Your task to perform on an android device: Turn on the flashlight Image 0: 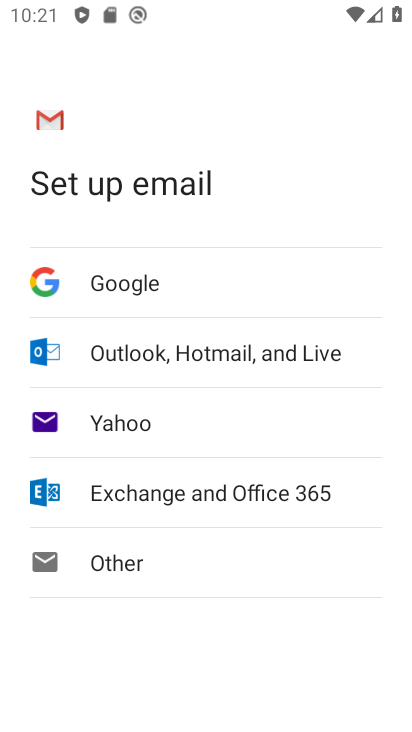
Step 0: press back button
Your task to perform on an android device: Turn on the flashlight Image 1: 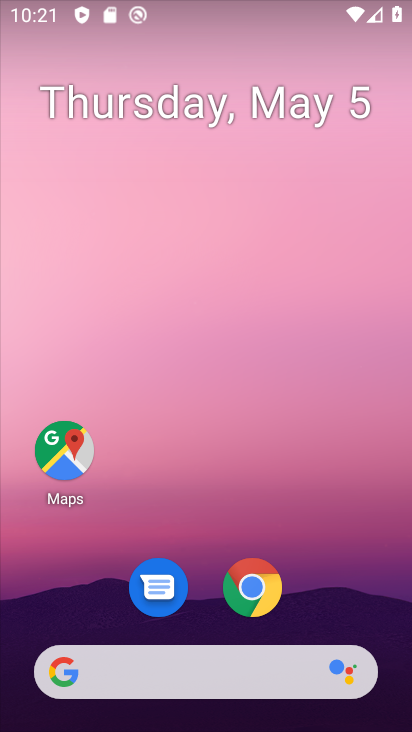
Step 1: drag from (297, 574) to (232, 7)
Your task to perform on an android device: Turn on the flashlight Image 2: 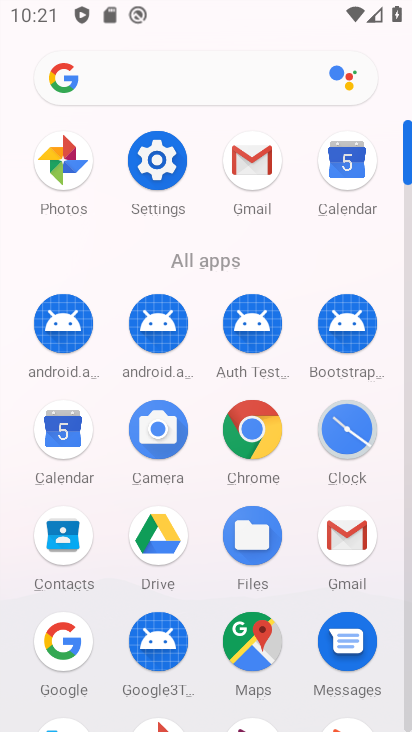
Step 2: drag from (5, 585) to (8, 285)
Your task to perform on an android device: Turn on the flashlight Image 3: 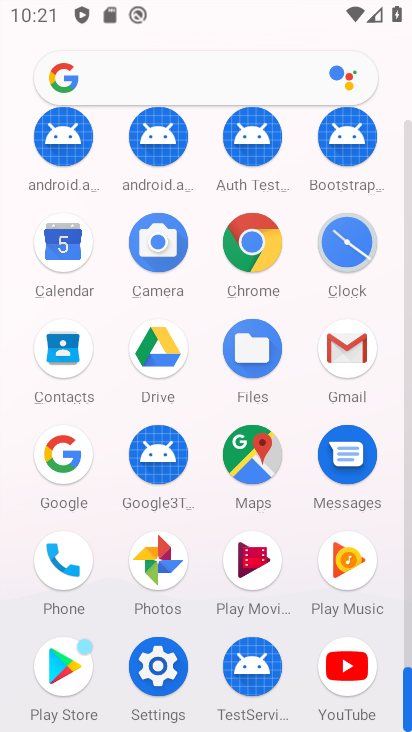
Step 3: drag from (3, 592) to (4, 284)
Your task to perform on an android device: Turn on the flashlight Image 4: 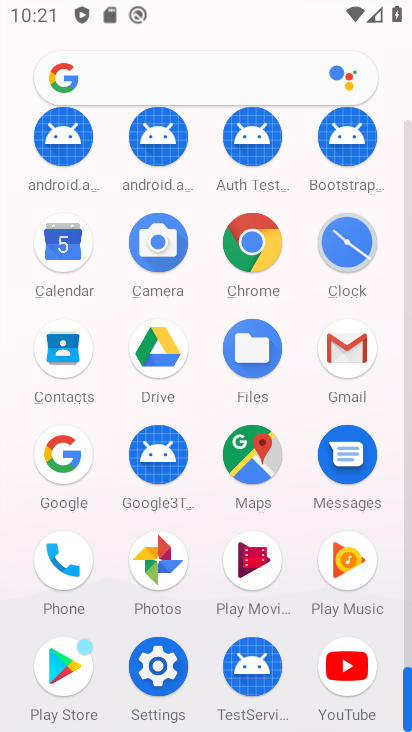
Step 4: click (158, 666)
Your task to perform on an android device: Turn on the flashlight Image 5: 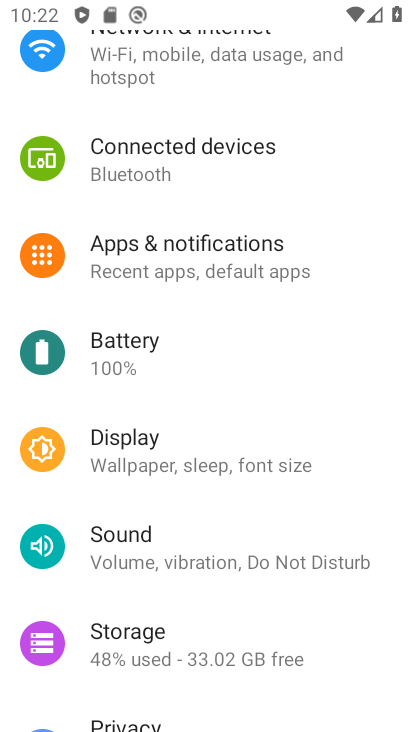
Step 5: drag from (263, 96) to (226, 560)
Your task to perform on an android device: Turn on the flashlight Image 6: 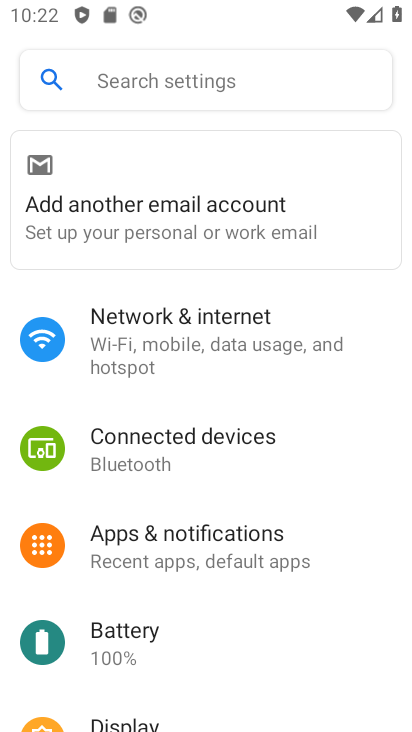
Step 6: drag from (302, 542) to (329, 222)
Your task to perform on an android device: Turn on the flashlight Image 7: 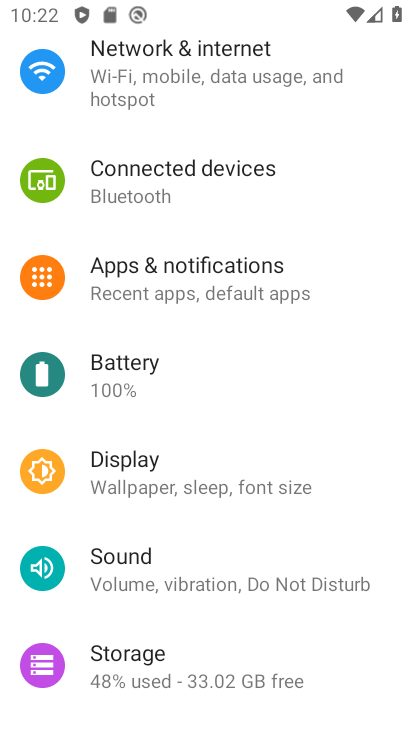
Step 7: drag from (258, 115) to (261, 447)
Your task to perform on an android device: Turn on the flashlight Image 8: 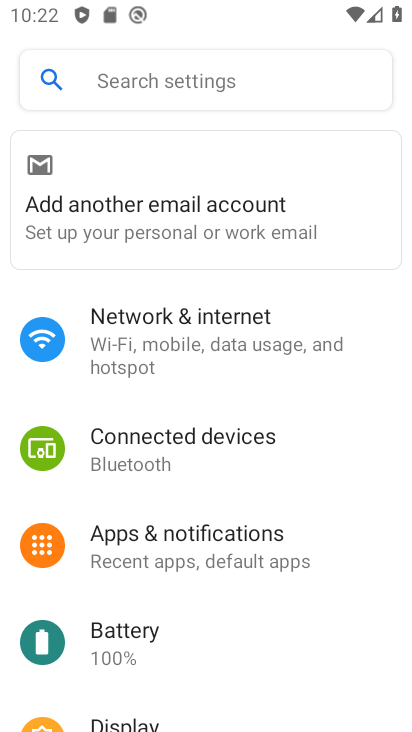
Step 8: click (202, 357)
Your task to perform on an android device: Turn on the flashlight Image 9: 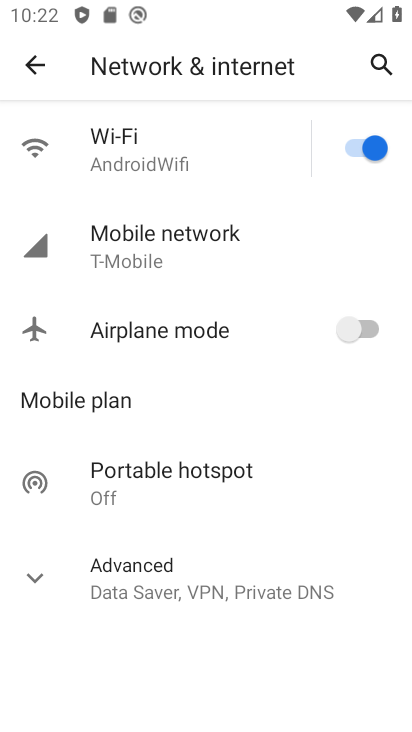
Step 9: click (34, 579)
Your task to perform on an android device: Turn on the flashlight Image 10: 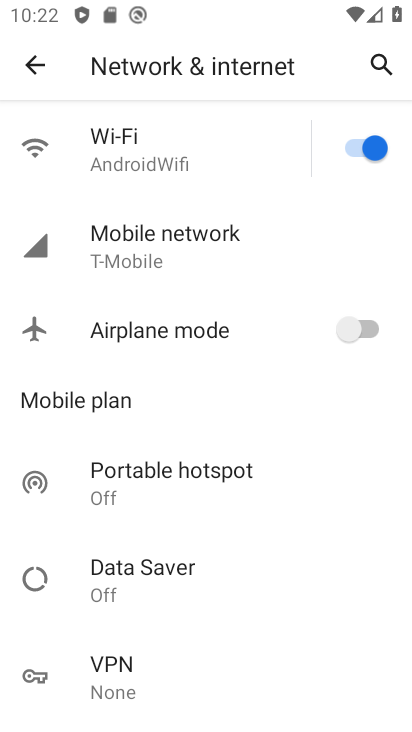
Step 10: drag from (212, 586) to (229, 163)
Your task to perform on an android device: Turn on the flashlight Image 11: 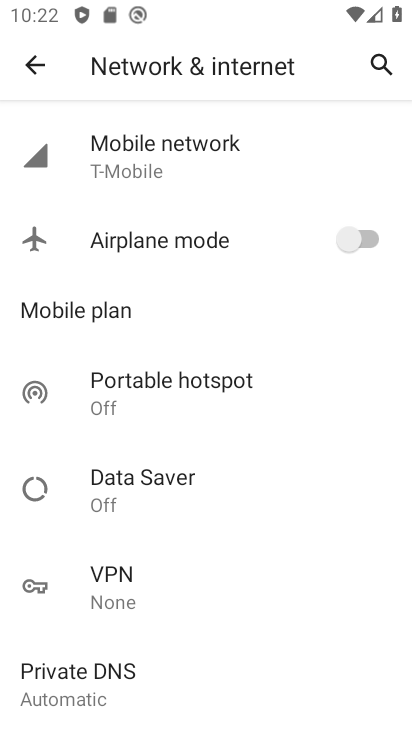
Step 11: click (36, 64)
Your task to perform on an android device: Turn on the flashlight Image 12: 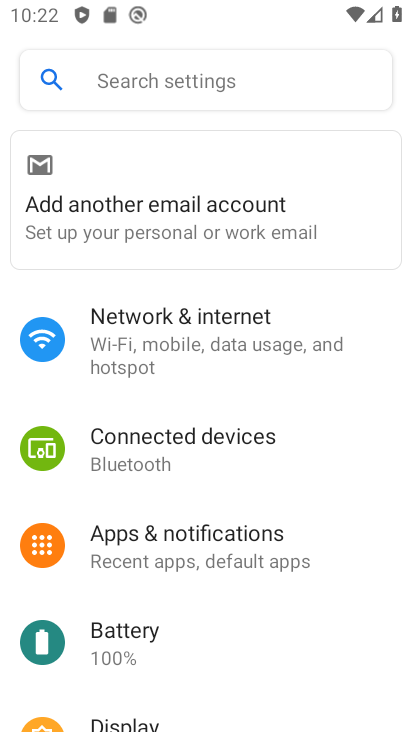
Step 12: task complete